Your task to perform on an android device: remove spam from my inbox in the gmail app Image 0: 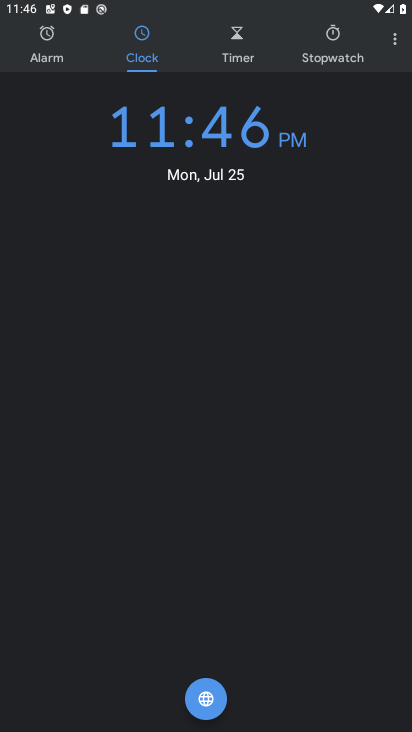
Step 0: press home button
Your task to perform on an android device: remove spam from my inbox in the gmail app Image 1: 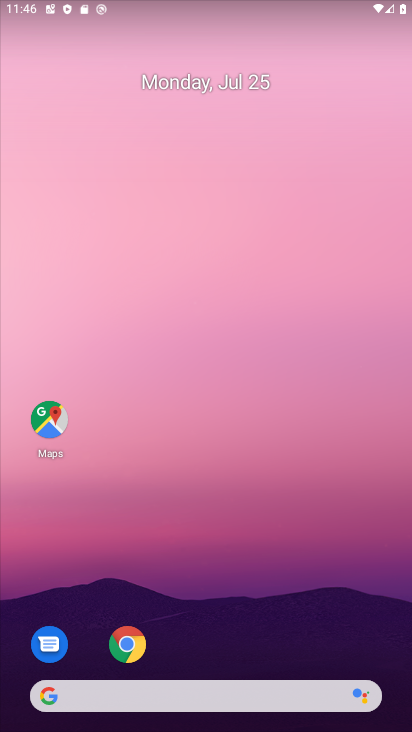
Step 1: drag from (241, 688) to (189, 114)
Your task to perform on an android device: remove spam from my inbox in the gmail app Image 2: 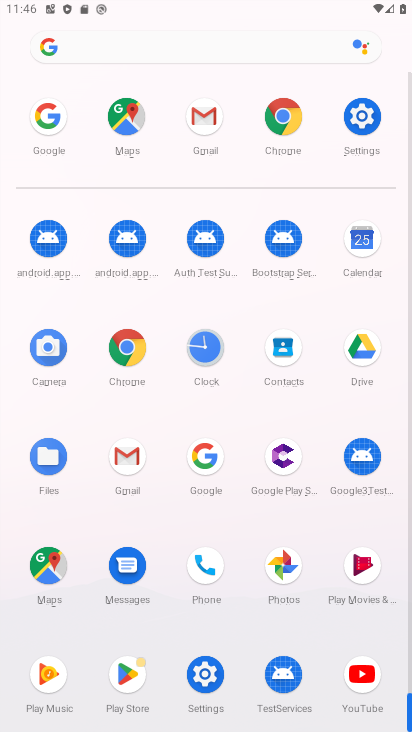
Step 2: click (126, 460)
Your task to perform on an android device: remove spam from my inbox in the gmail app Image 3: 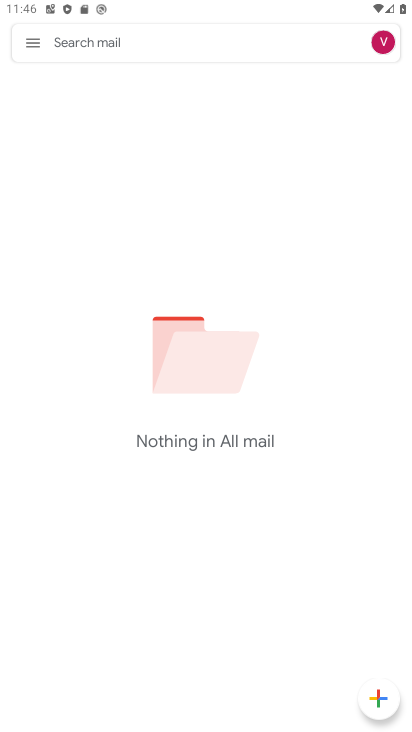
Step 3: click (33, 44)
Your task to perform on an android device: remove spam from my inbox in the gmail app Image 4: 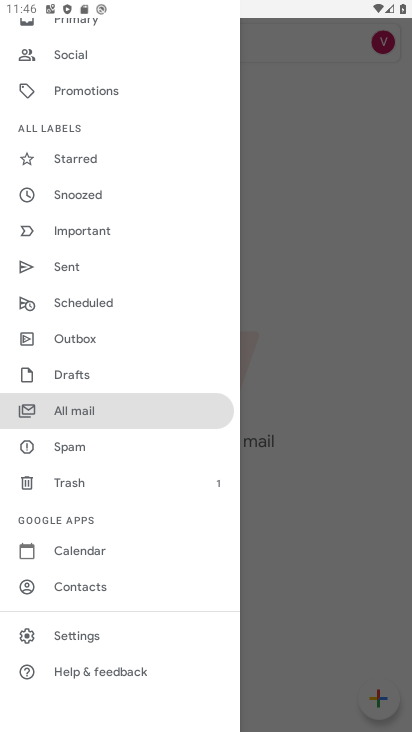
Step 4: click (69, 452)
Your task to perform on an android device: remove spam from my inbox in the gmail app Image 5: 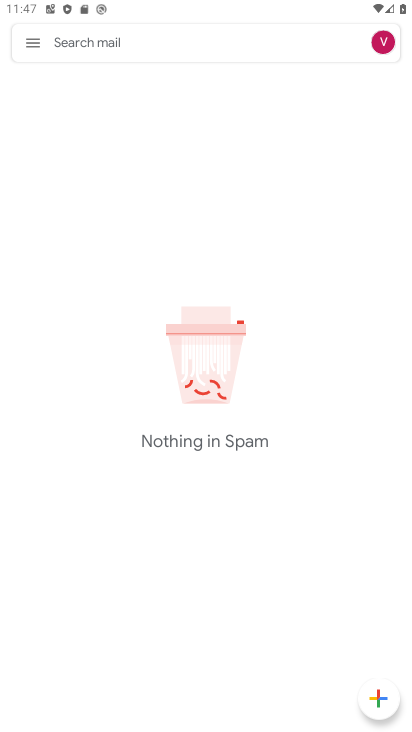
Step 5: task complete